Your task to perform on an android device: visit the assistant section in the google photos Image 0: 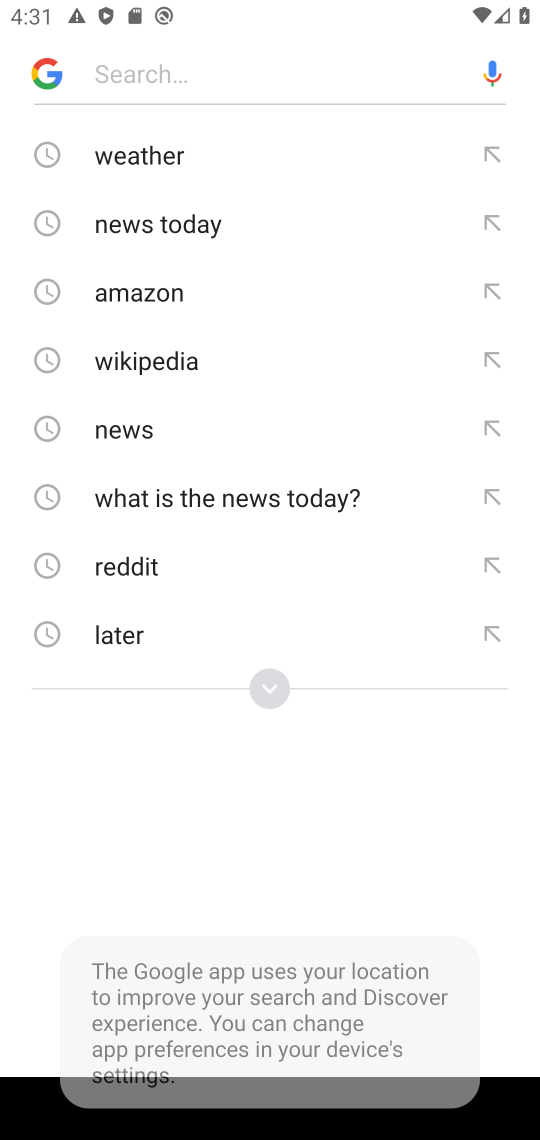
Step 0: press home button
Your task to perform on an android device: visit the assistant section in the google photos Image 1: 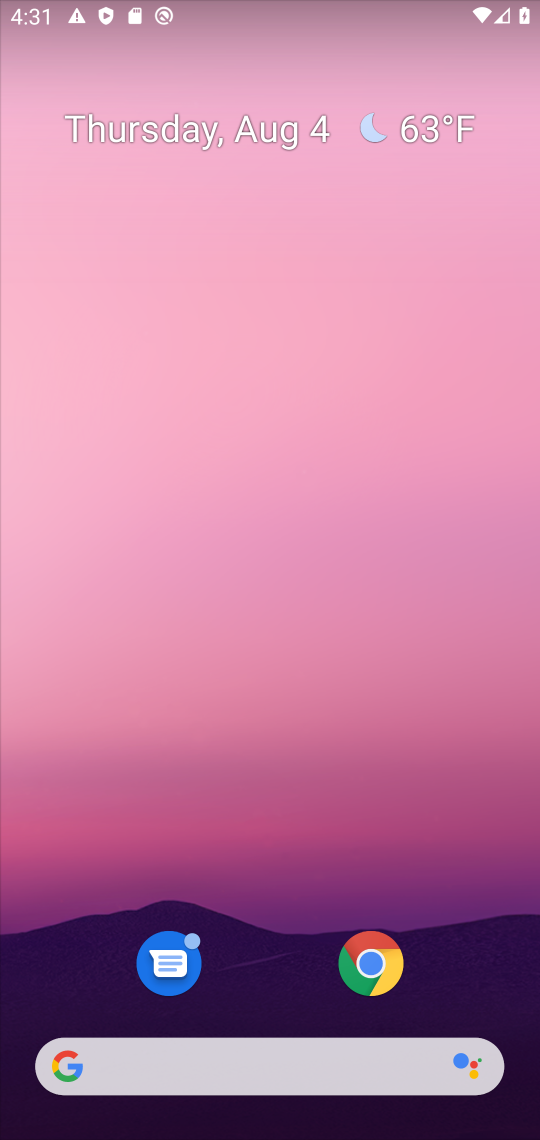
Step 1: drag from (282, 909) to (279, 199)
Your task to perform on an android device: visit the assistant section in the google photos Image 2: 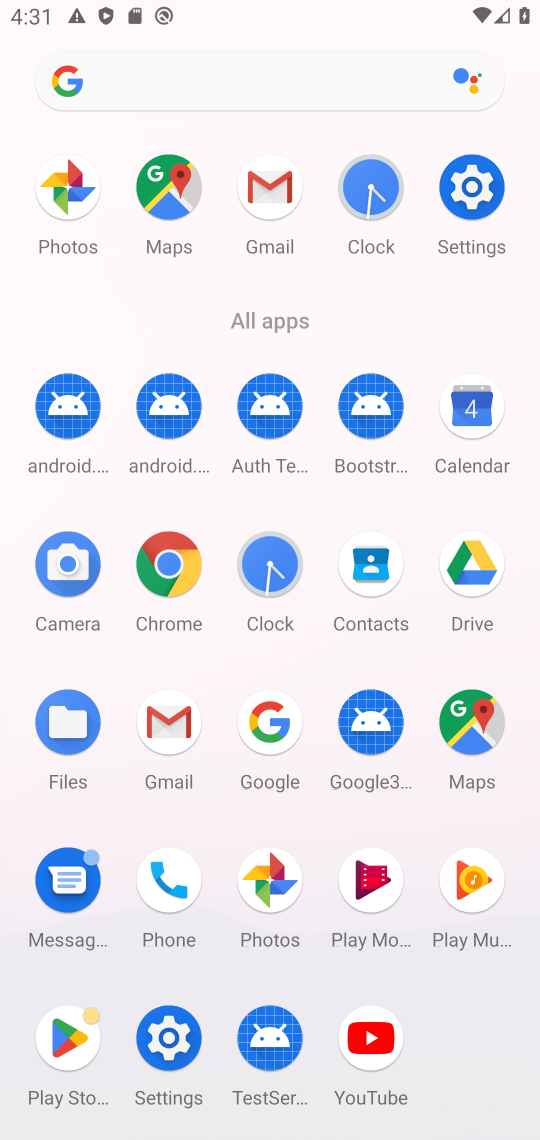
Step 2: click (71, 190)
Your task to perform on an android device: visit the assistant section in the google photos Image 3: 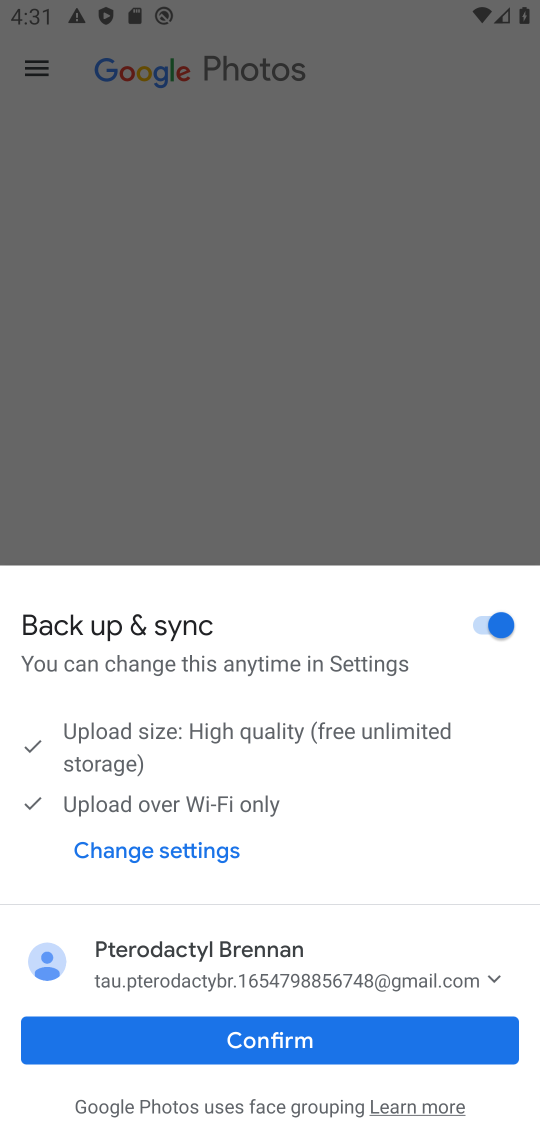
Step 3: click (266, 1041)
Your task to perform on an android device: visit the assistant section in the google photos Image 4: 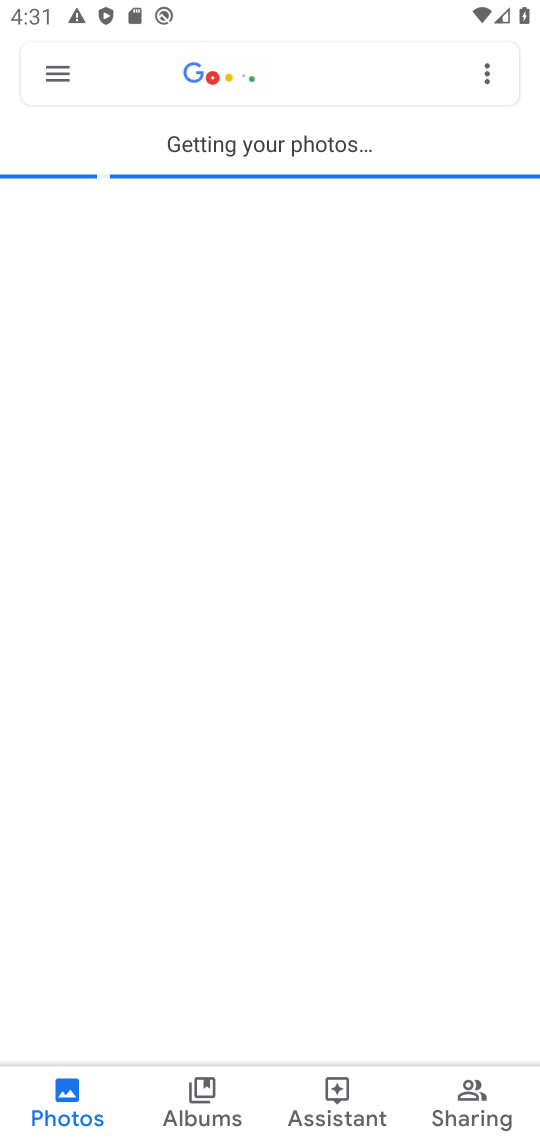
Step 4: click (343, 1096)
Your task to perform on an android device: visit the assistant section in the google photos Image 5: 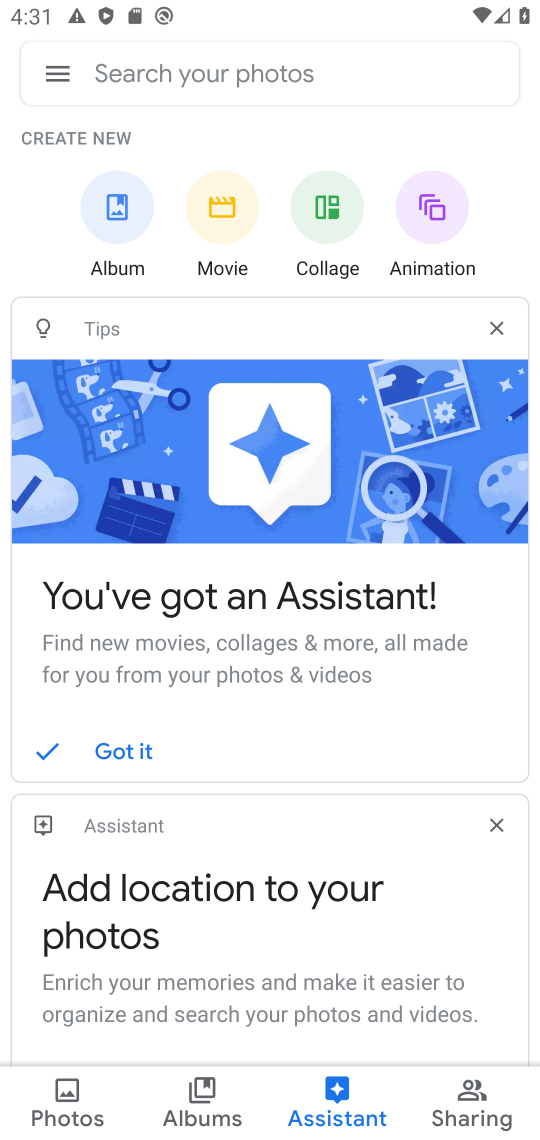
Step 5: task complete